Your task to perform on an android device: What's on my calendar tomorrow? Image 0: 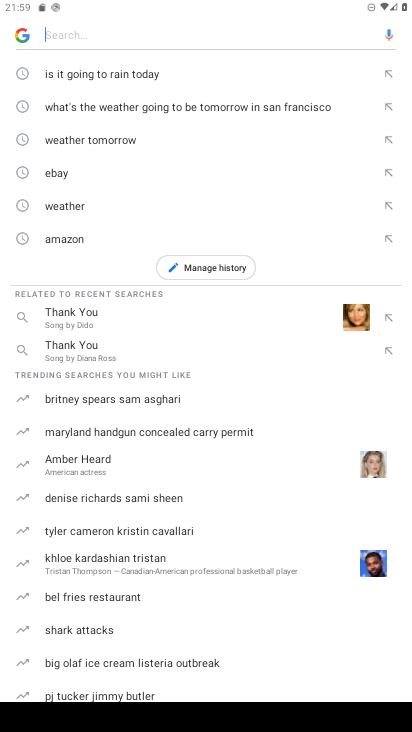
Step 0: press home button
Your task to perform on an android device: What's on my calendar tomorrow? Image 1: 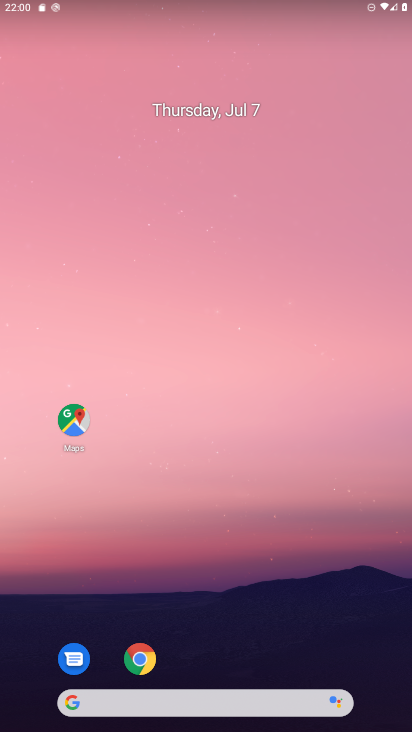
Step 1: drag from (255, 602) to (174, 79)
Your task to perform on an android device: What's on my calendar tomorrow? Image 2: 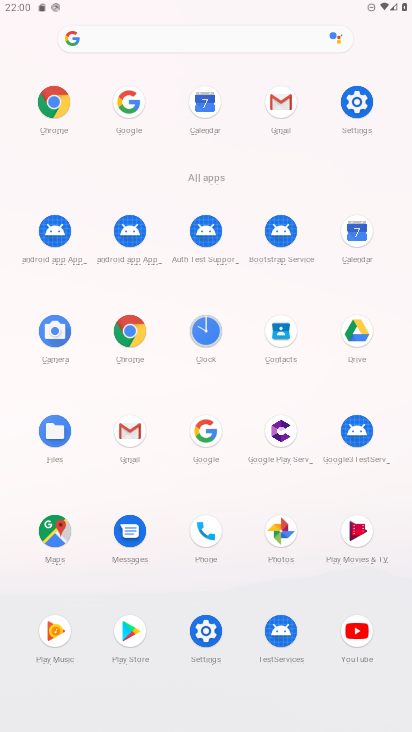
Step 2: click (364, 236)
Your task to perform on an android device: What's on my calendar tomorrow? Image 3: 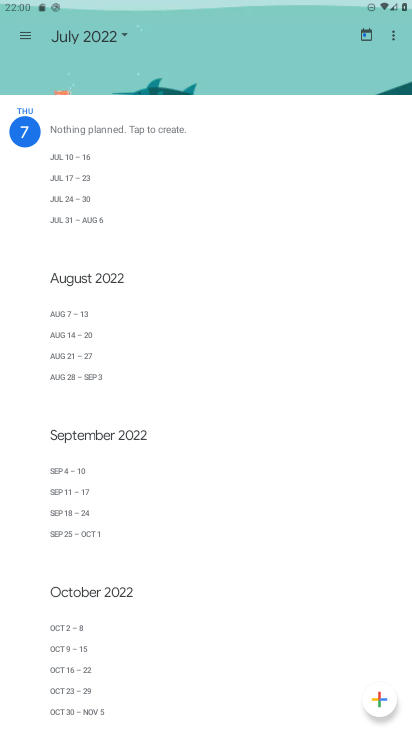
Step 3: click (19, 31)
Your task to perform on an android device: What's on my calendar tomorrow? Image 4: 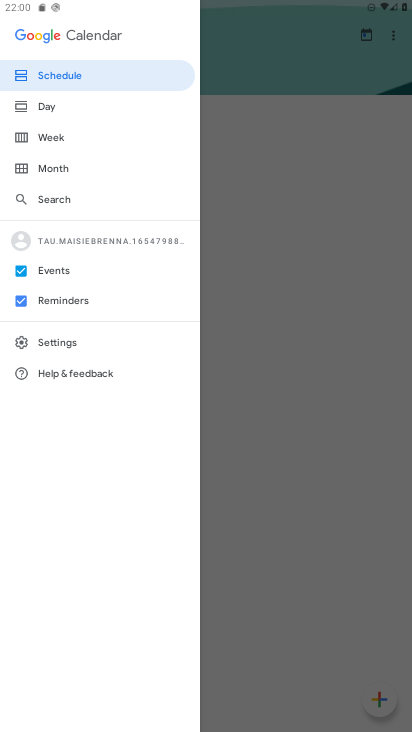
Step 4: click (48, 102)
Your task to perform on an android device: What's on my calendar tomorrow? Image 5: 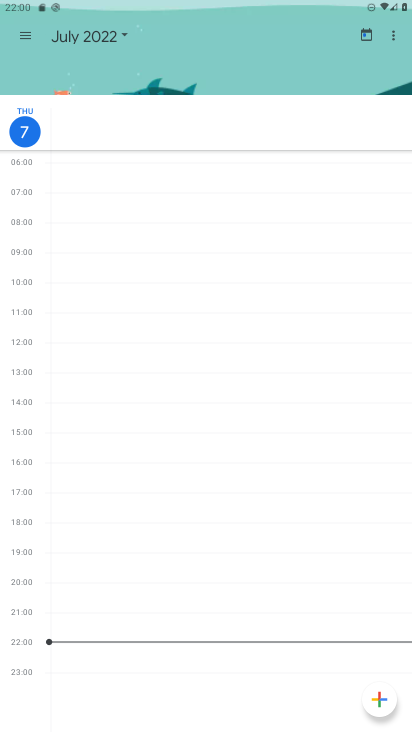
Step 5: click (122, 36)
Your task to perform on an android device: What's on my calendar tomorrow? Image 6: 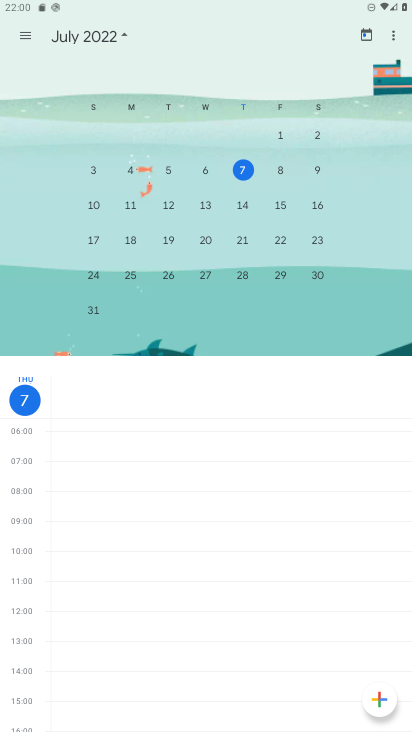
Step 6: click (280, 171)
Your task to perform on an android device: What's on my calendar tomorrow? Image 7: 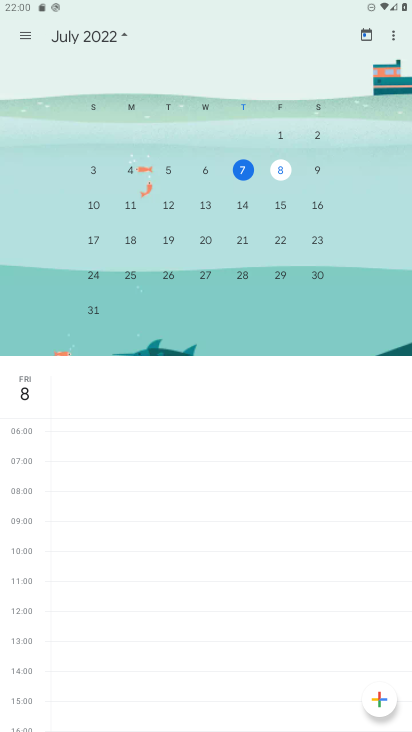
Step 7: task complete